Your task to perform on an android device: What's the news in Malaysia? Image 0: 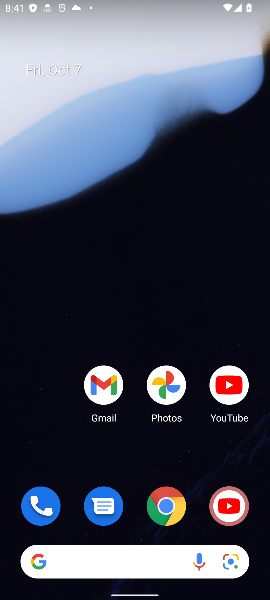
Step 0: click (170, 508)
Your task to perform on an android device: What's the news in Malaysia? Image 1: 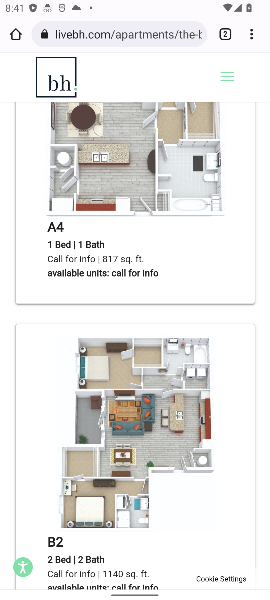
Step 1: click (159, 36)
Your task to perform on an android device: What's the news in Malaysia? Image 2: 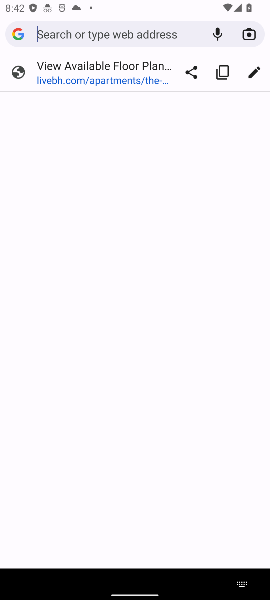
Step 2: type "news in Malaysia"
Your task to perform on an android device: What's the news in Malaysia? Image 3: 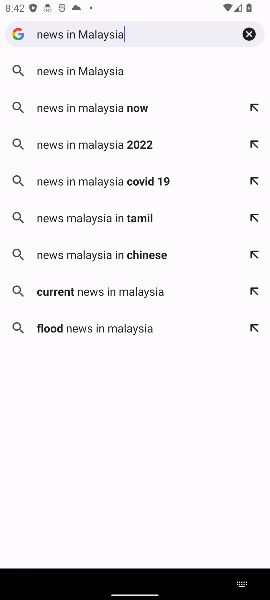
Step 3: click (93, 71)
Your task to perform on an android device: What's the news in Malaysia? Image 4: 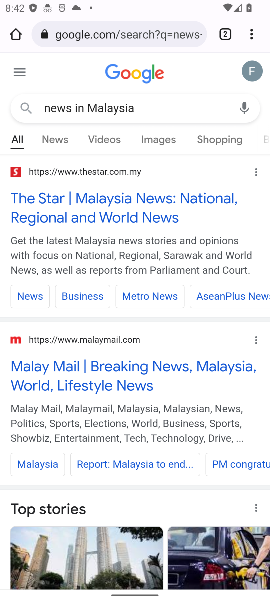
Step 4: click (52, 139)
Your task to perform on an android device: What's the news in Malaysia? Image 5: 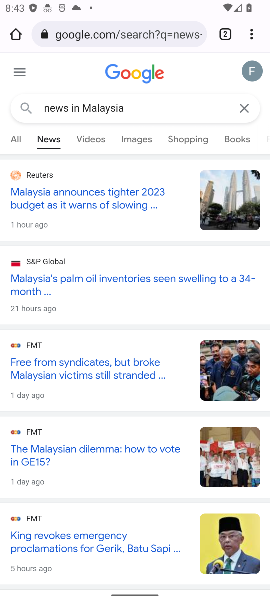
Step 5: task complete